Your task to perform on an android device: What is the recent news? Image 0: 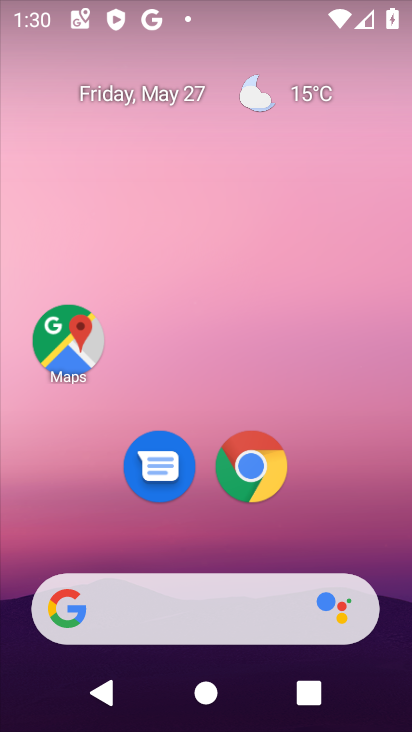
Step 0: drag from (13, 269) to (404, 266)
Your task to perform on an android device: What is the recent news? Image 1: 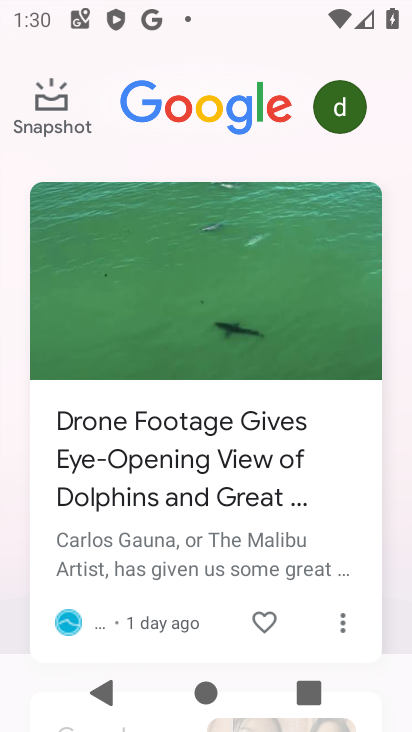
Step 1: task complete